Your task to perform on an android device: Go to network settings Image 0: 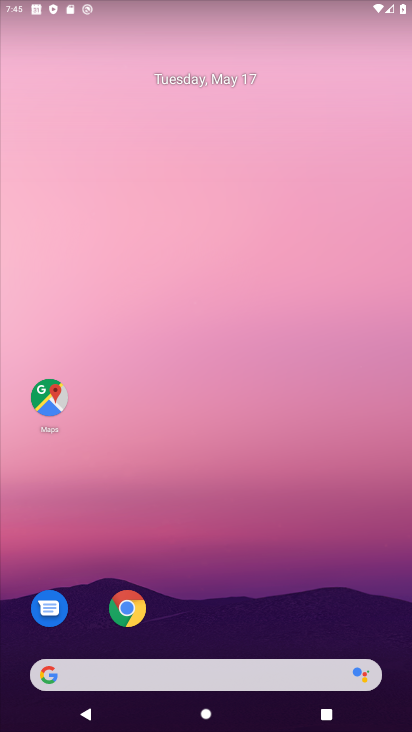
Step 0: drag from (218, 622) to (316, 183)
Your task to perform on an android device: Go to network settings Image 1: 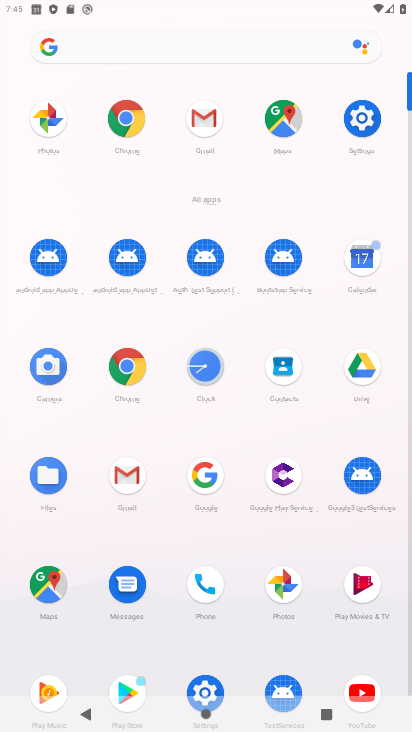
Step 1: click (362, 127)
Your task to perform on an android device: Go to network settings Image 2: 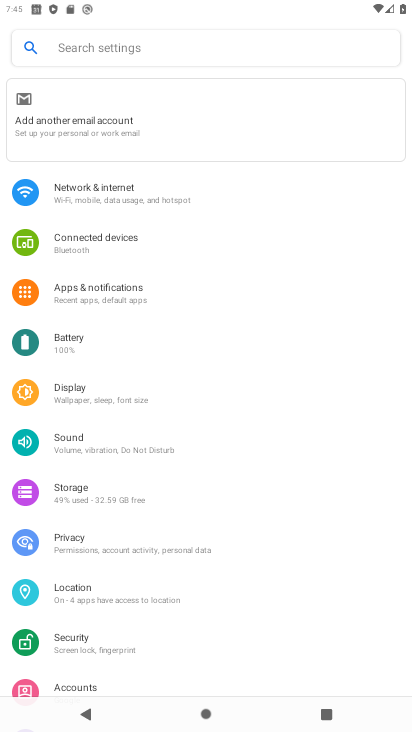
Step 2: click (98, 187)
Your task to perform on an android device: Go to network settings Image 3: 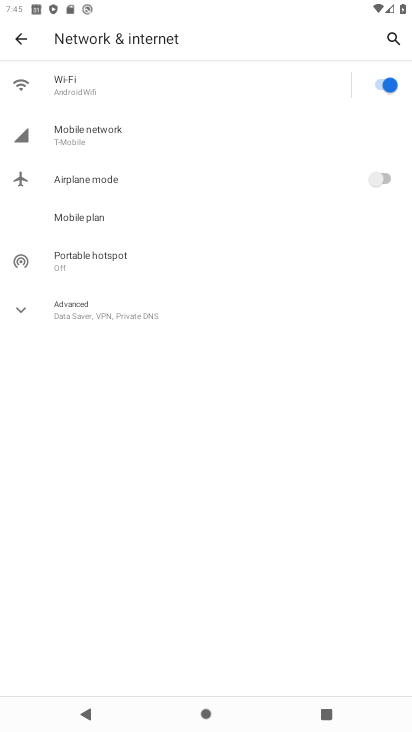
Step 3: task complete